Your task to perform on an android device: Search for usb-a on newegg.com, select the first entry, add it to the cart, then select checkout. Image 0: 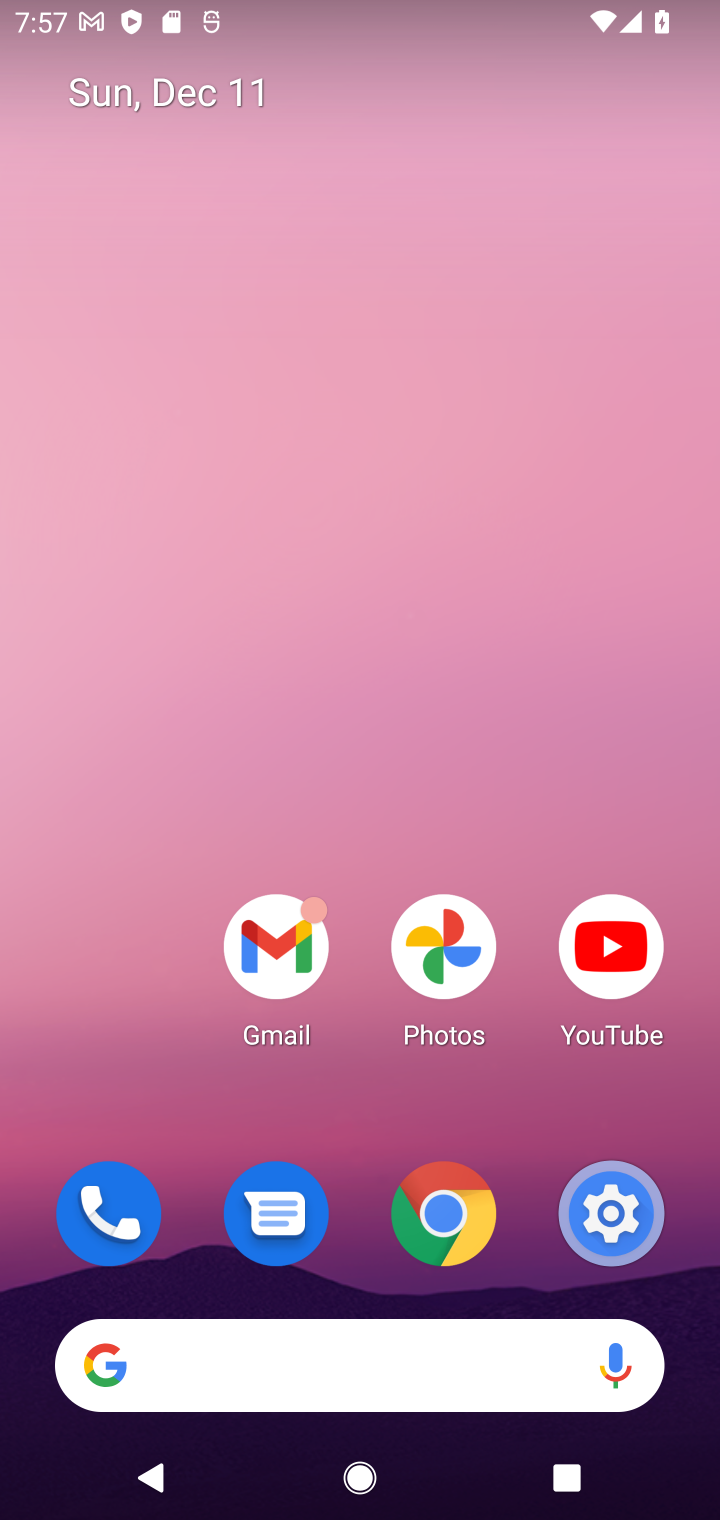
Step 0: click (446, 1360)
Your task to perform on an android device: Search for usb-a on newegg.com, select the first entry, add it to the cart, then select checkout. Image 1: 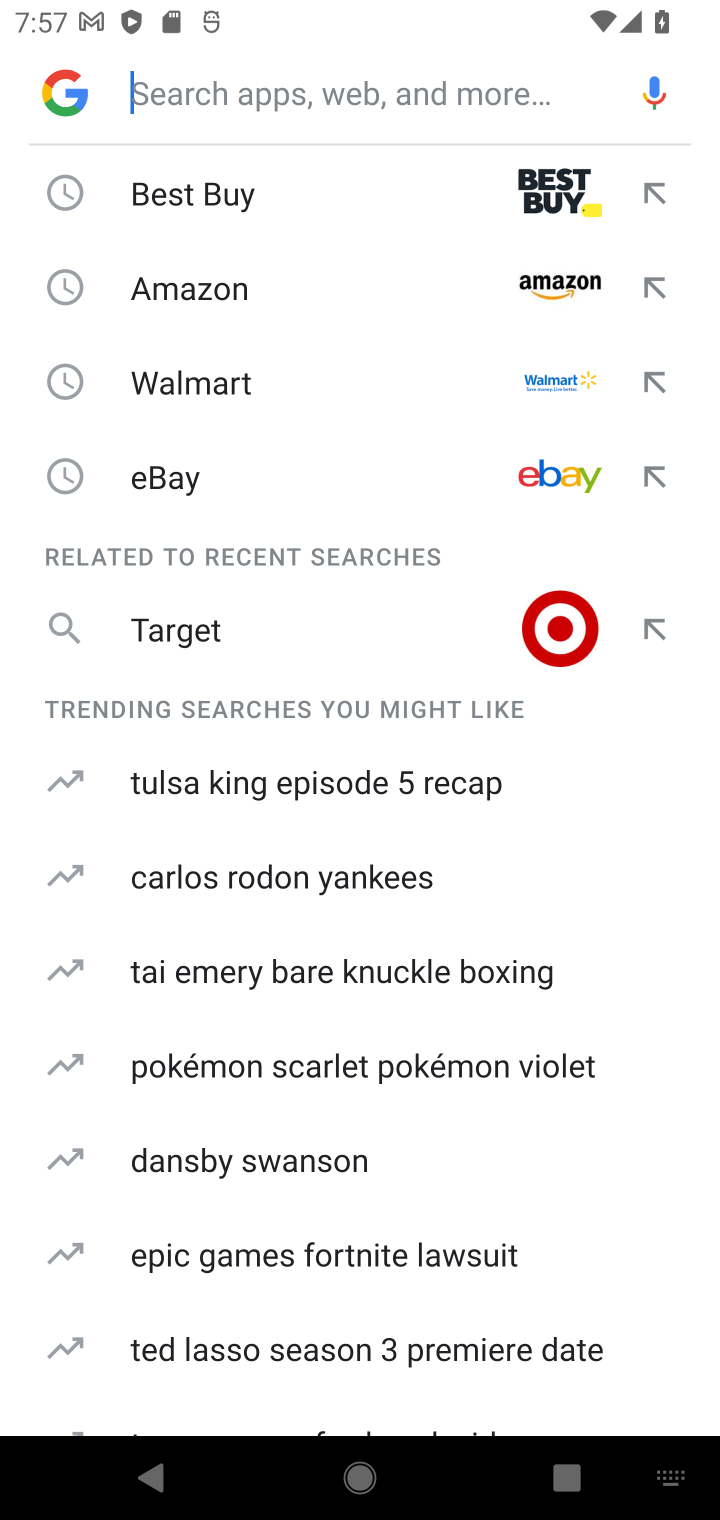
Step 1: type "newegg.com"
Your task to perform on an android device: Search for usb-a on newegg.com, select the first entry, add it to the cart, then select checkout. Image 2: 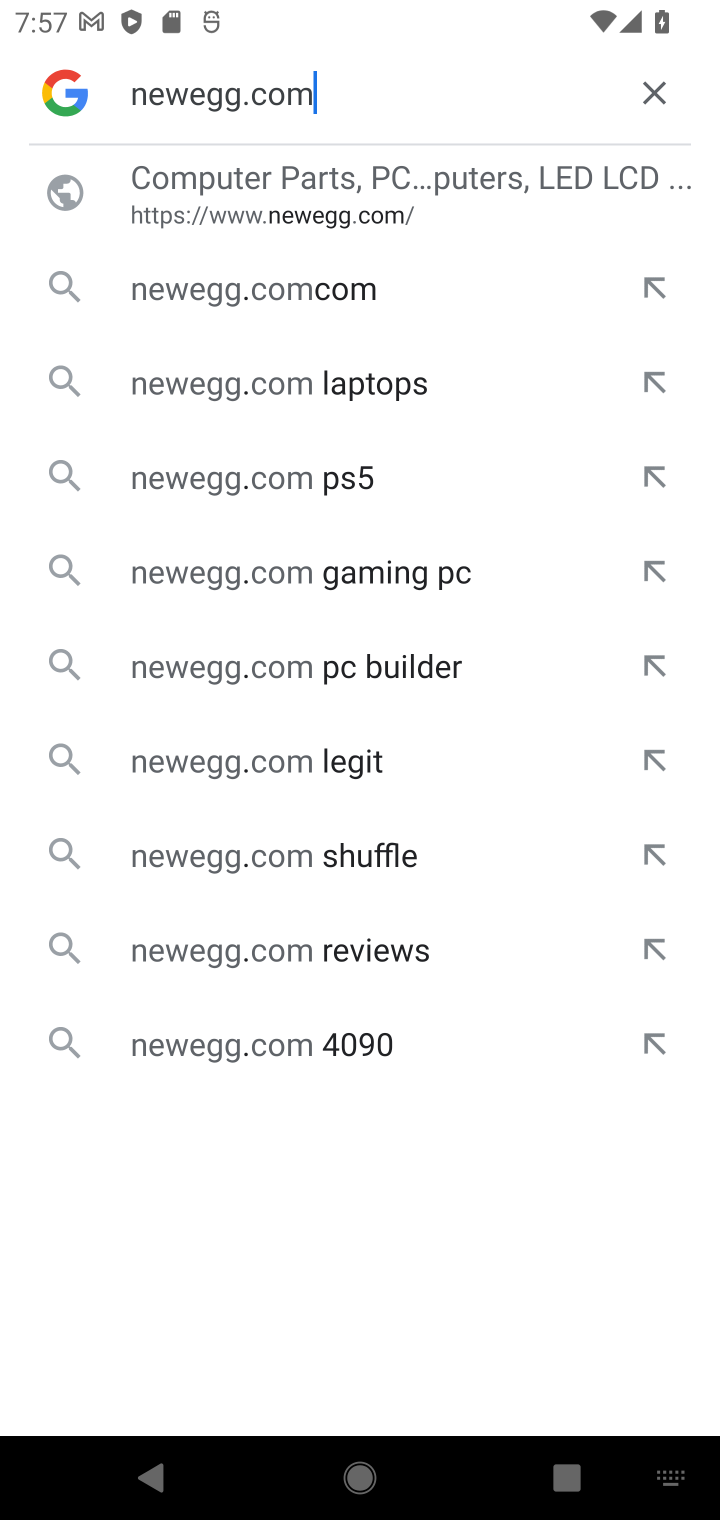
Step 2: click (397, 213)
Your task to perform on an android device: Search for usb-a on newegg.com, select the first entry, add it to the cart, then select checkout. Image 3: 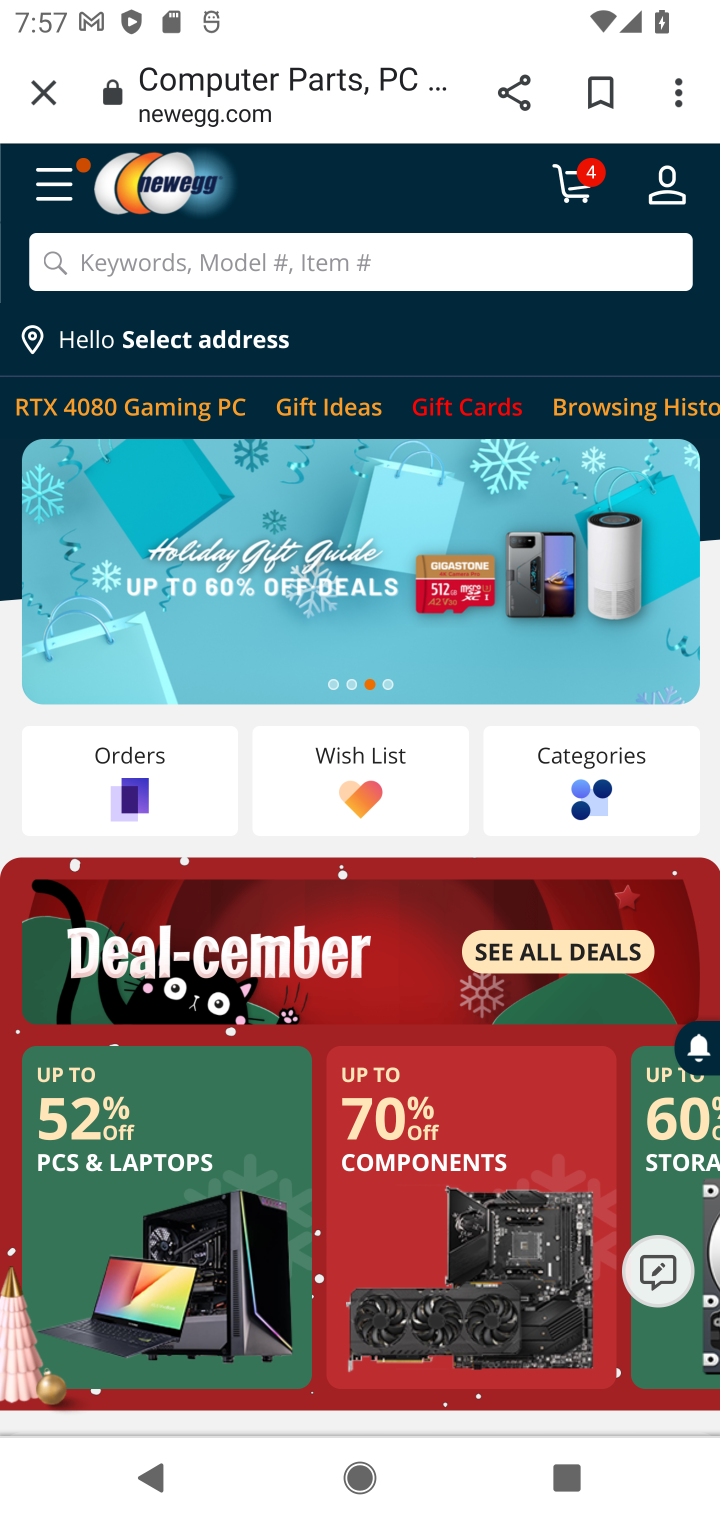
Step 3: click (281, 273)
Your task to perform on an android device: Search for usb-a on newegg.com, select the first entry, add it to the cart, then select checkout. Image 4: 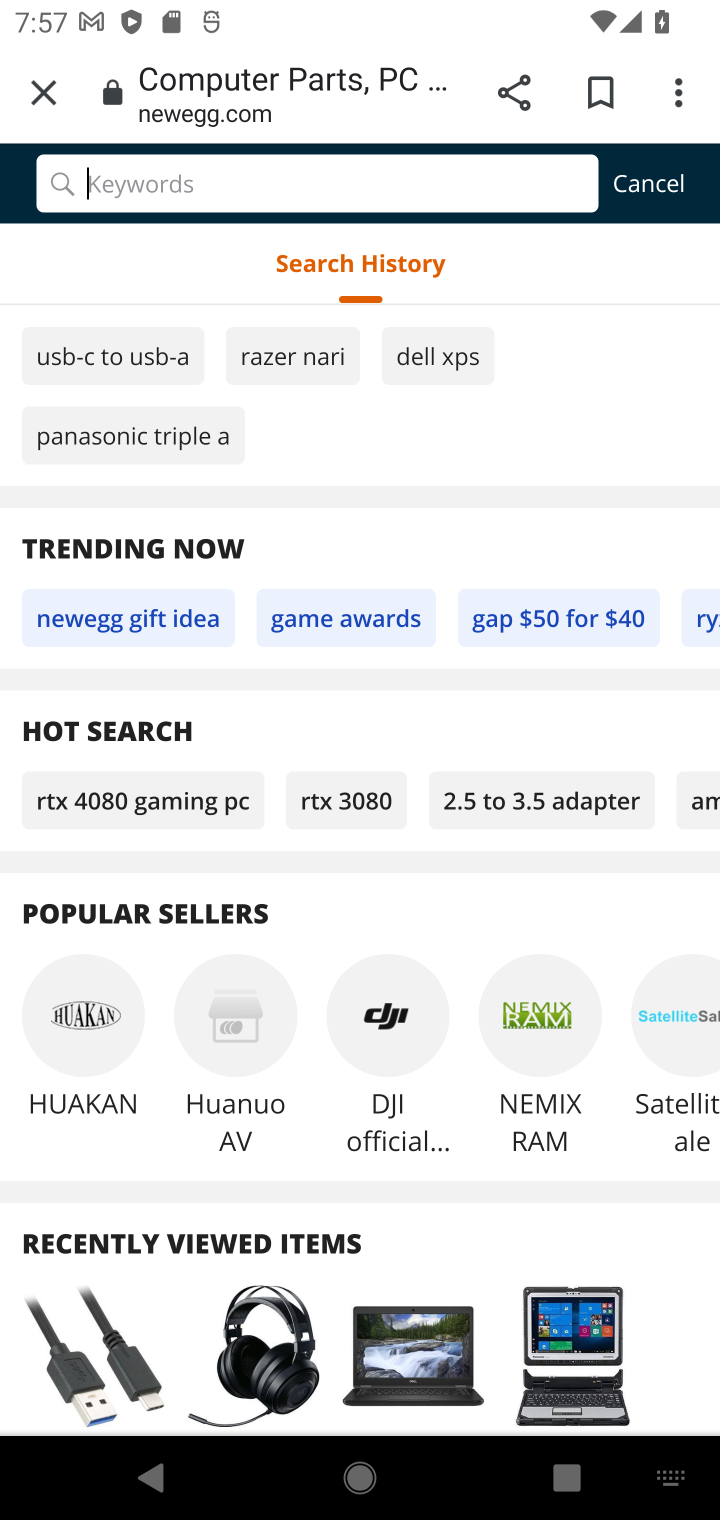
Step 4: type "usb-a"
Your task to perform on an android device: Search for usb-a on newegg.com, select the first entry, add it to the cart, then select checkout. Image 5: 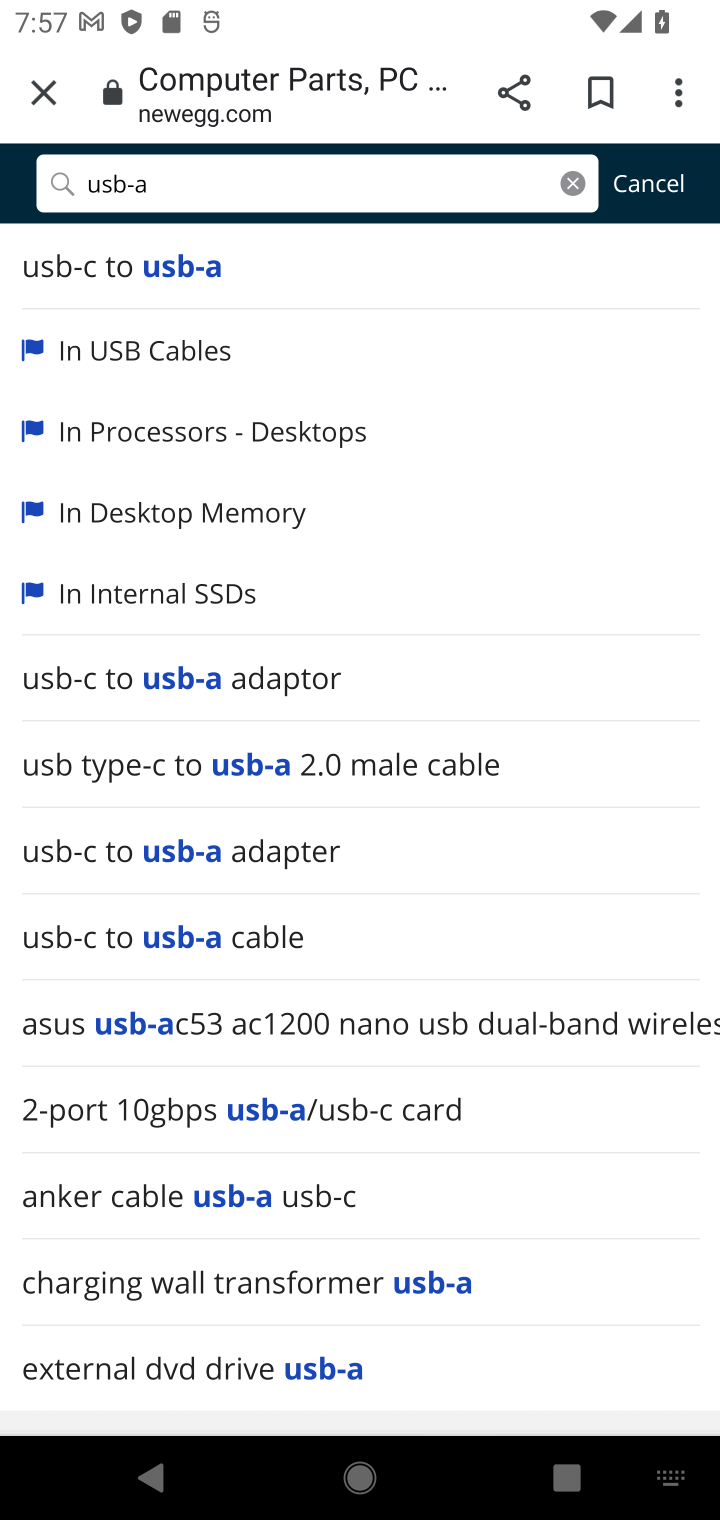
Step 5: click (454, 179)
Your task to perform on an android device: Search for usb-a on newegg.com, select the first entry, add it to the cart, then select checkout. Image 6: 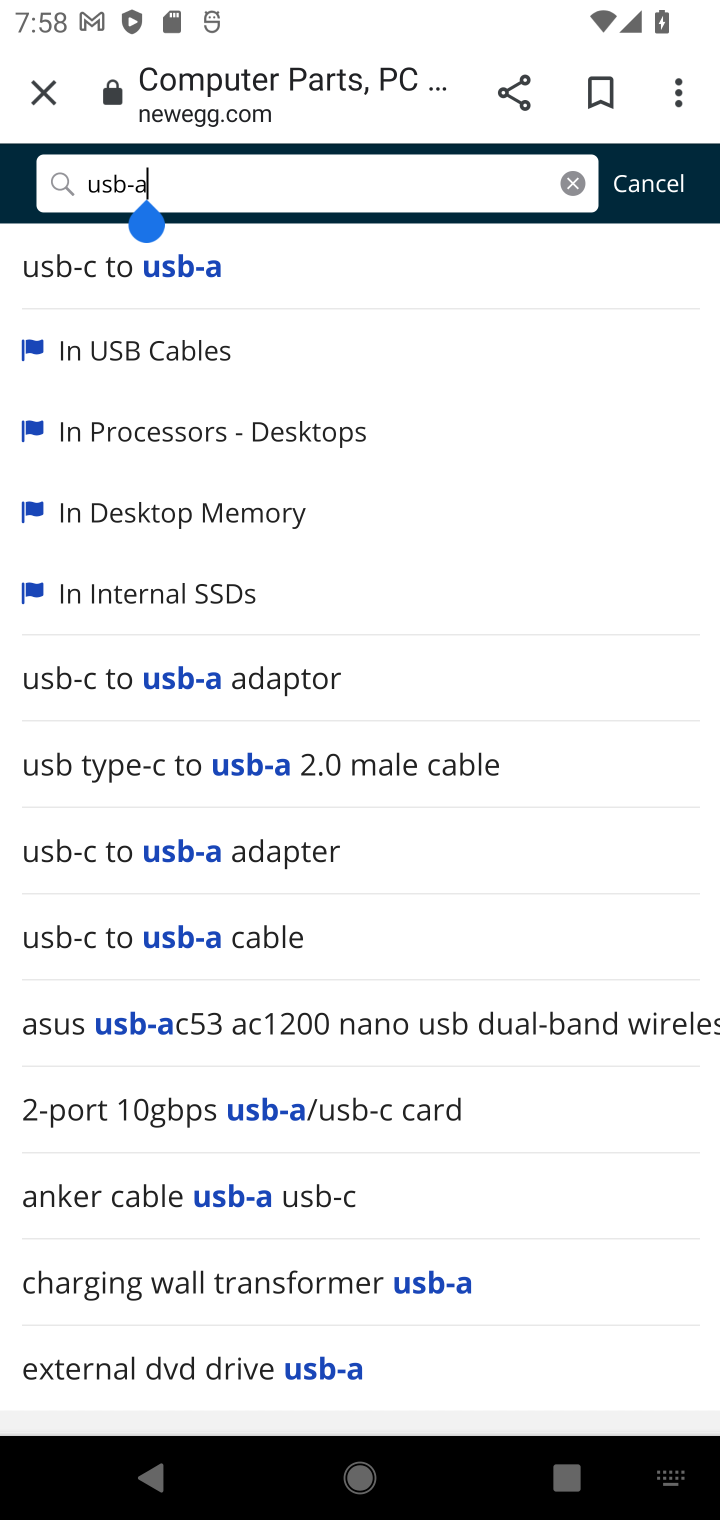
Step 6: task complete